Your task to perform on an android device: change text size in settings app Image 0: 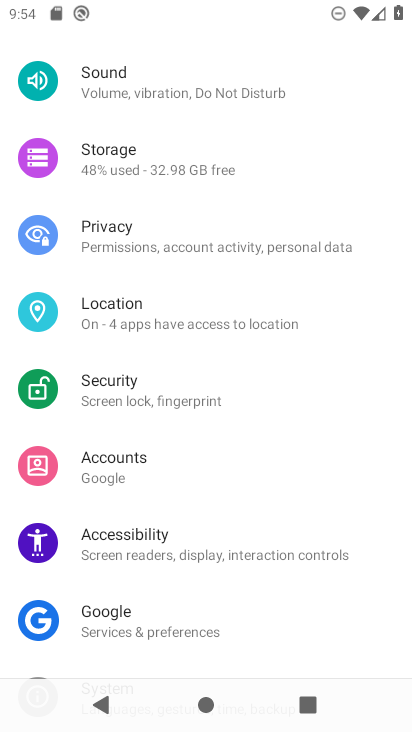
Step 0: drag from (161, 117) to (277, 463)
Your task to perform on an android device: change text size in settings app Image 1: 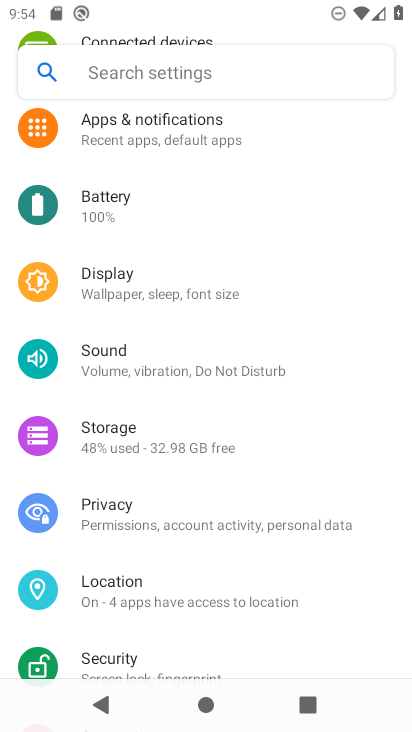
Step 1: click (122, 295)
Your task to perform on an android device: change text size in settings app Image 2: 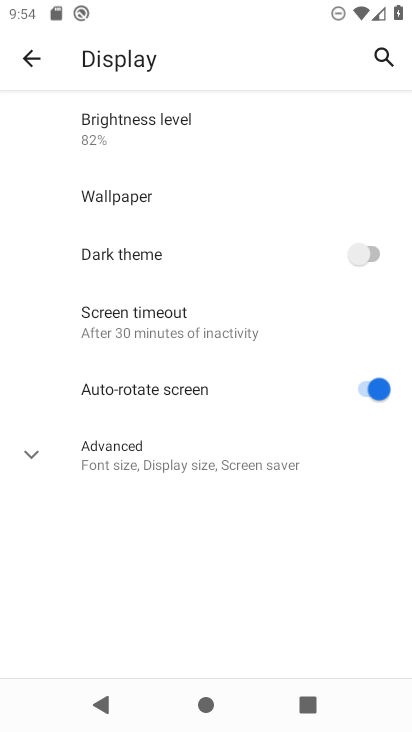
Step 2: click (124, 454)
Your task to perform on an android device: change text size in settings app Image 3: 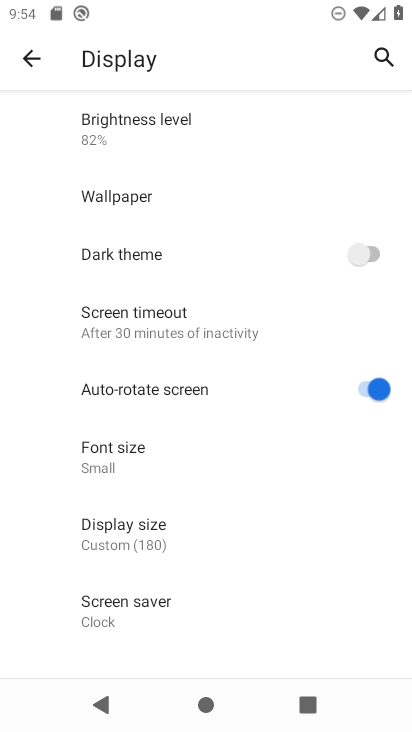
Step 3: click (117, 471)
Your task to perform on an android device: change text size in settings app Image 4: 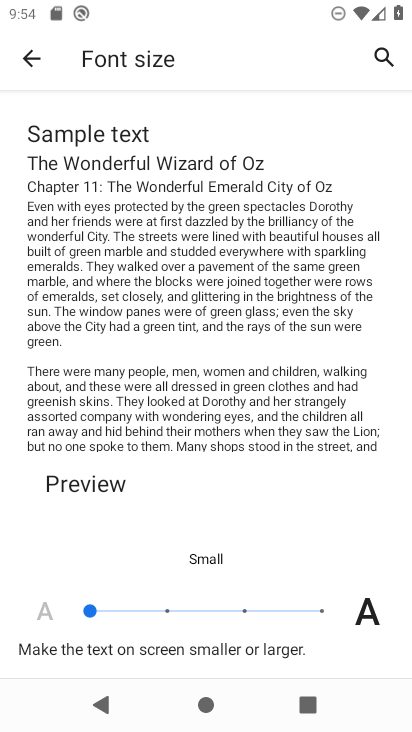
Step 4: click (163, 612)
Your task to perform on an android device: change text size in settings app Image 5: 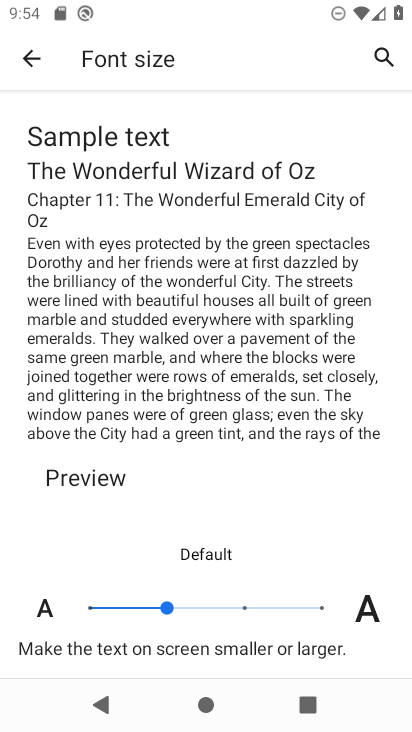
Step 5: task complete